Your task to perform on an android device: Open location settings Image 0: 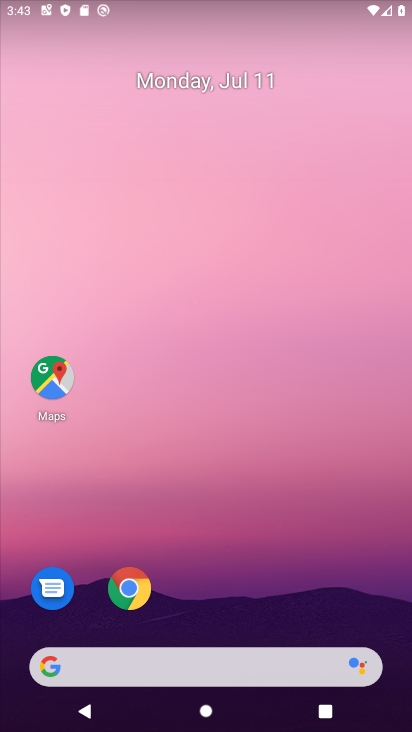
Step 0: press home button
Your task to perform on an android device: Open location settings Image 1: 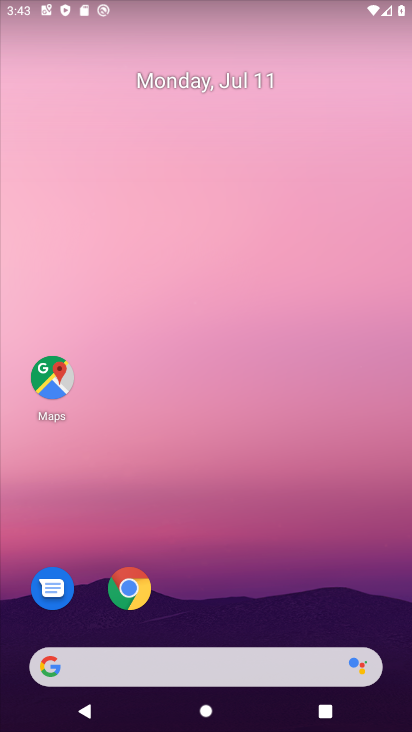
Step 1: drag from (256, 459) to (240, 4)
Your task to perform on an android device: Open location settings Image 2: 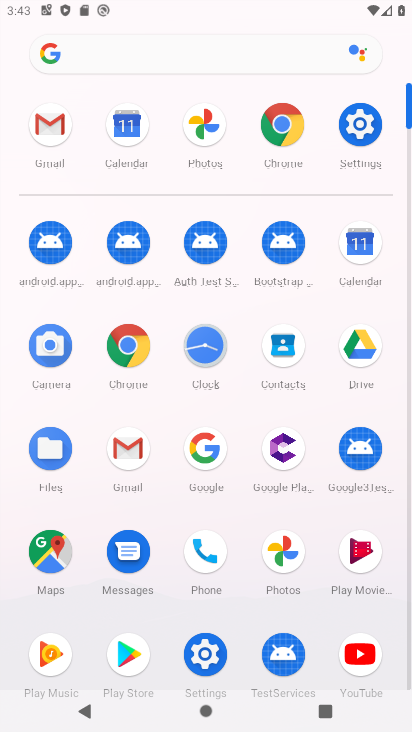
Step 2: click (360, 130)
Your task to perform on an android device: Open location settings Image 3: 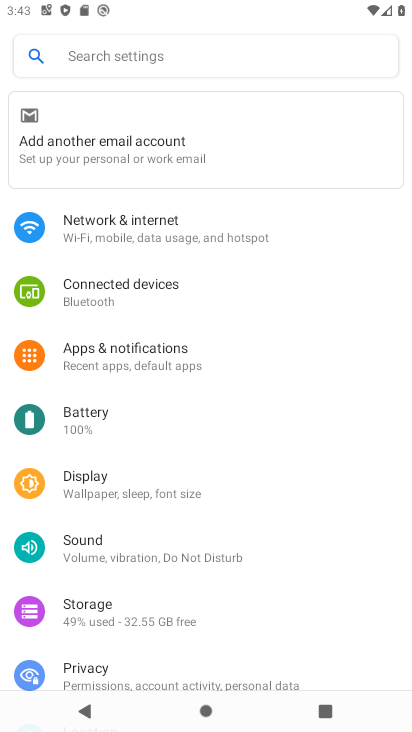
Step 3: drag from (178, 642) to (160, 284)
Your task to perform on an android device: Open location settings Image 4: 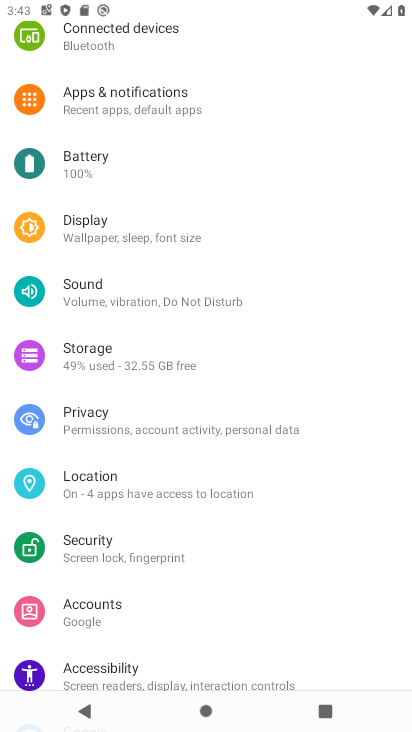
Step 4: click (87, 475)
Your task to perform on an android device: Open location settings Image 5: 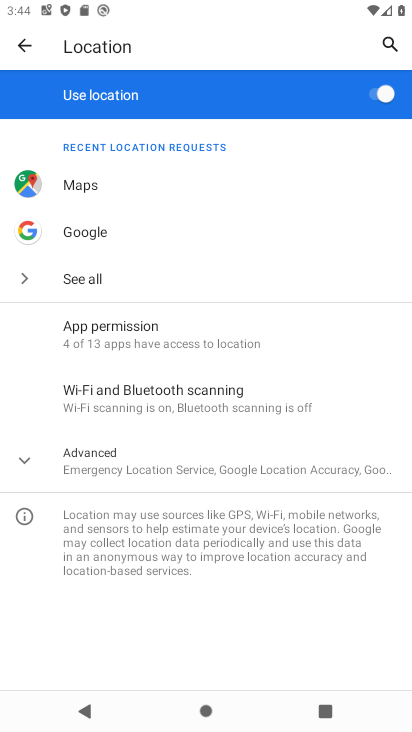
Step 5: task complete